Your task to perform on an android device: Add "lg ultragear" to the cart on newegg.com Image 0: 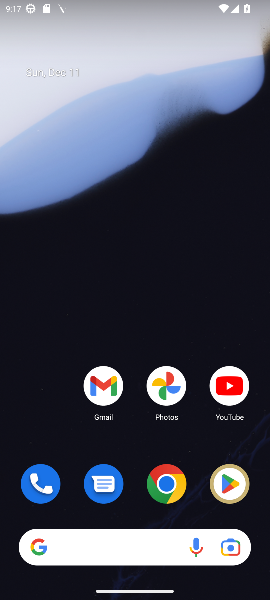
Step 0: click (173, 483)
Your task to perform on an android device: Add "lg ultragear" to the cart on newegg.com Image 1: 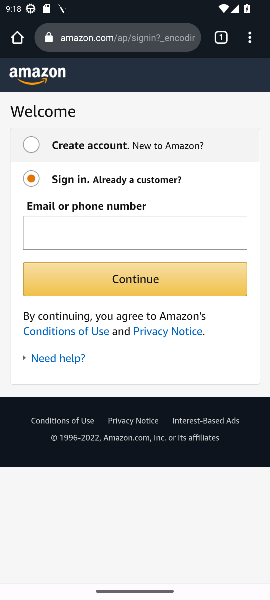
Step 1: click (93, 35)
Your task to perform on an android device: Add "lg ultragear" to the cart on newegg.com Image 2: 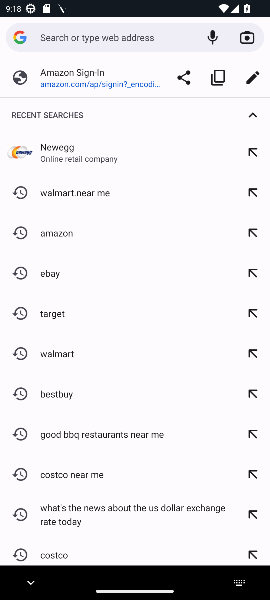
Step 2: click (72, 159)
Your task to perform on an android device: Add "lg ultragear" to the cart on newegg.com Image 3: 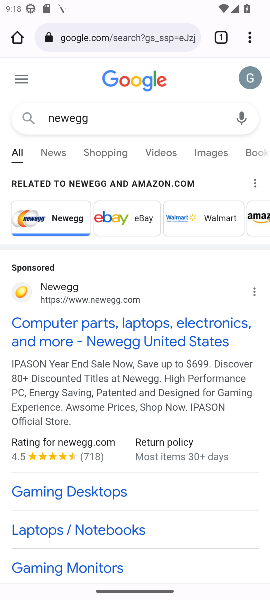
Step 3: click (64, 324)
Your task to perform on an android device: Add "lg ultragear" to the cart on newegg.com Image 4: 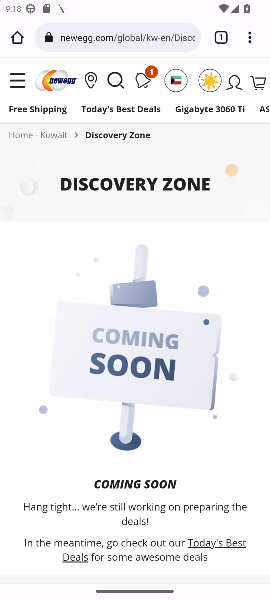
Step 4: click (109, 86)
Your task to perform on an android device: Add "lg ultragear" to the cart on newegg.com Image 5: 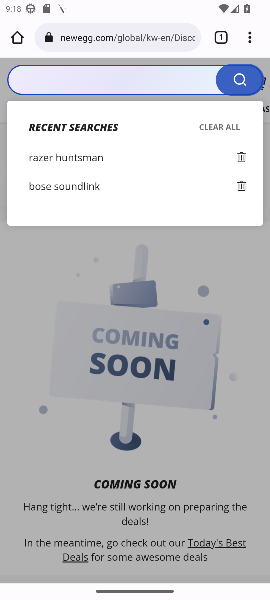
Step 5: click (109, 84)
Your task to perform on an android device: Add "lg ultragear" to the cart on newegg.com Image 6: 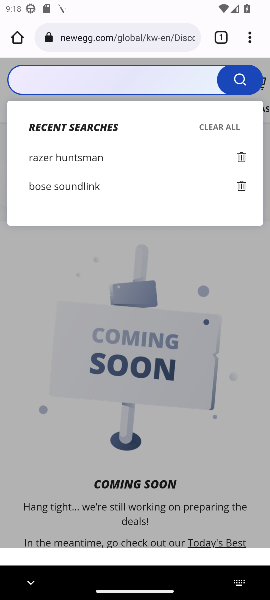
Step 6: type "lg ultragear"
Your task to perform on an android device: Add "lg ultragear" to the cart on newegg.com Image 7: 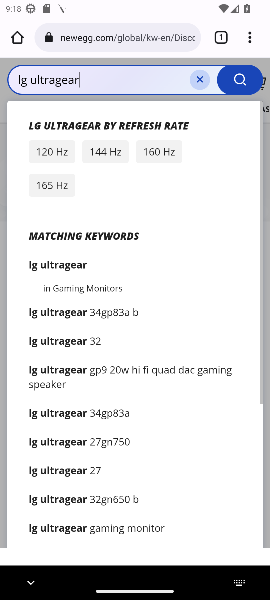
Step 7: click (88, 273)
Your task to perform on an android device: Add "lg ultragear" to the cart on newegg.com Image 8: 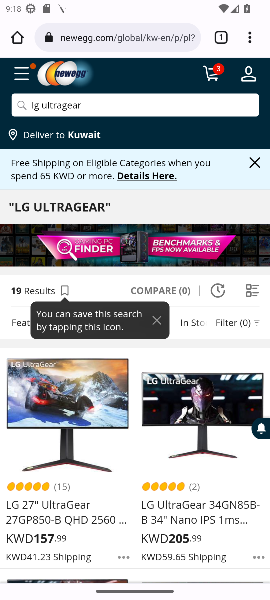
Step 8: click (49, 529)
Your task to perform on an android device: Add "lg ultragear" to the cart on newegg.com Image 9: 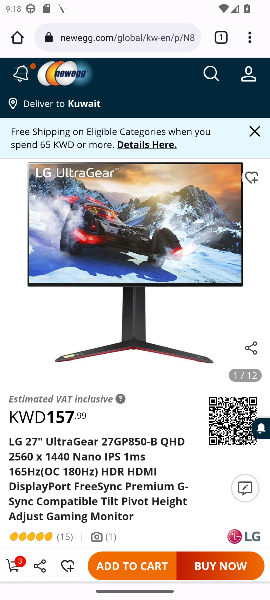
Step 9: click (108, 569)
Your task to perform on an android device: Add "lg ultragear" to the cart on newegg.com Image 10: 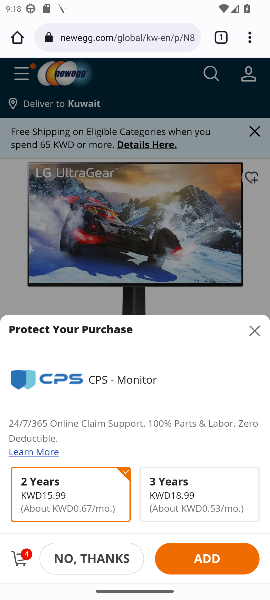
Step 10: task complete